Your task to perform on an android device: open device folders in google photos Image 0: 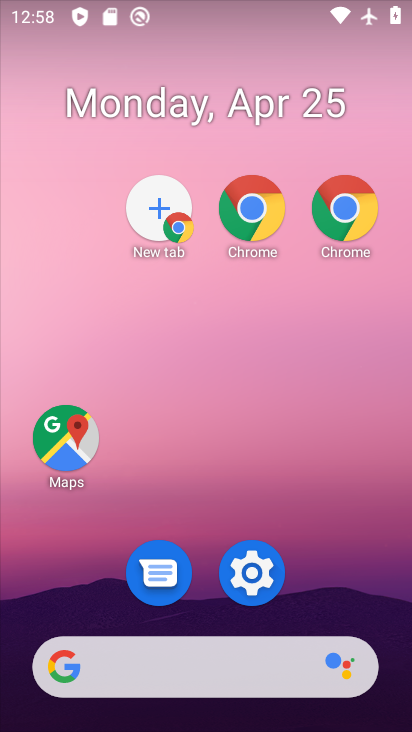
Step 0: drag from (255, 639) to (196, 197)
Your task to perform on an android device: open device folders in google photos Image 1: 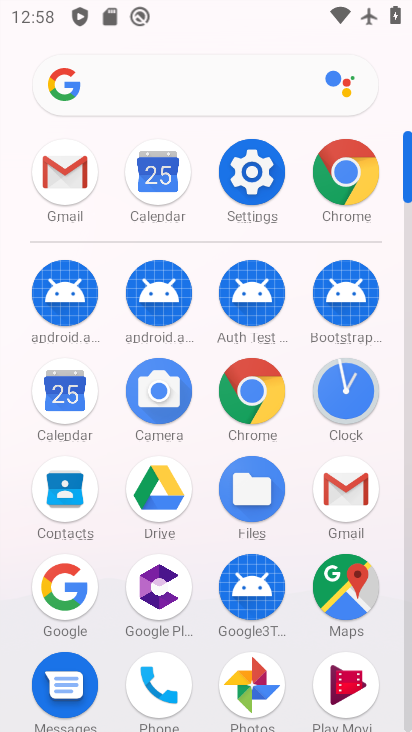
Step 1: click (258, 679)
Your task to perform on an android device: open device folders in google photos Image 2: 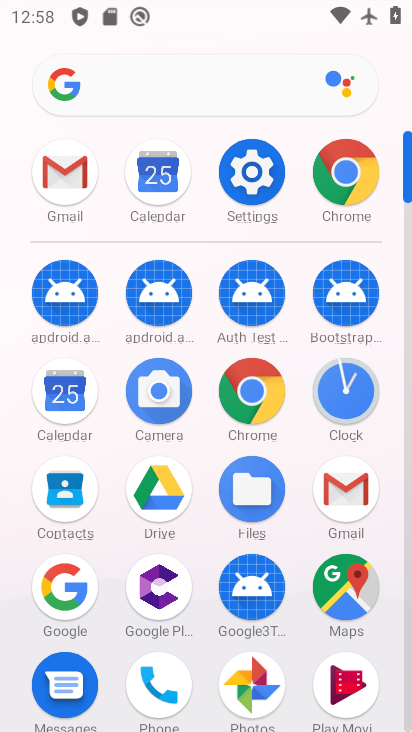
Step 2: click (258, 679)
Your task to perform on an android device: open device folders in google photos Image 3: 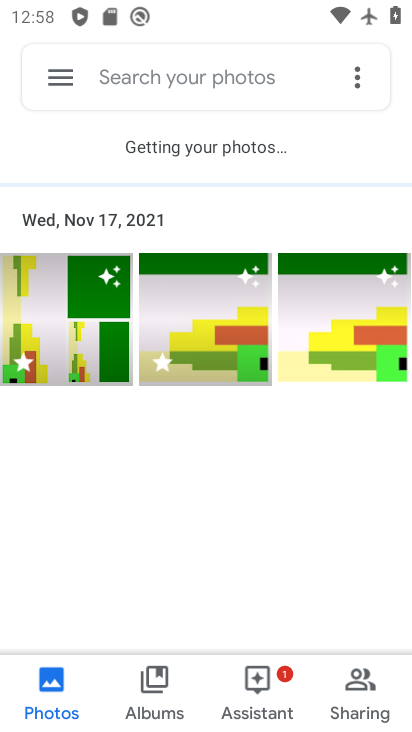
Step 3: drag from (67, 75) to (24, 103)
Your task to perform on an android device: open device folders in google photos Image 4: 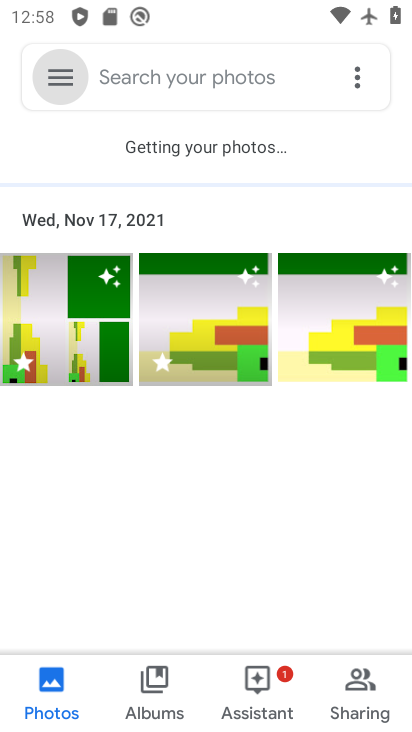
Step 4: click (50, 88)
Your task to perform on an android device: open device folders in google photos Image 5: 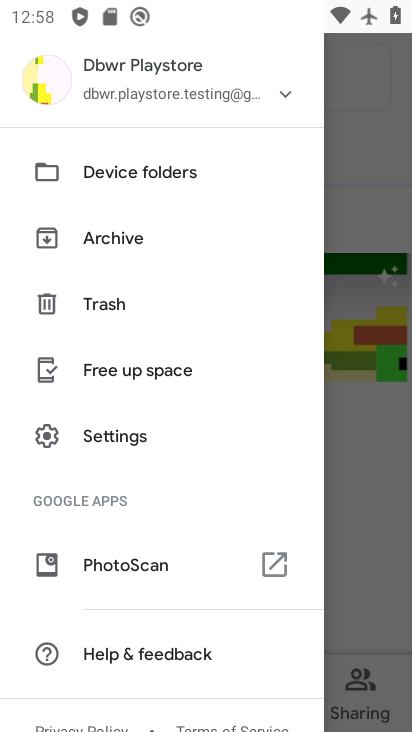
Step 5: drag from (62, 75) to (136, 495)
Your task to perform on an android device: open device folders in google photos Image 6: 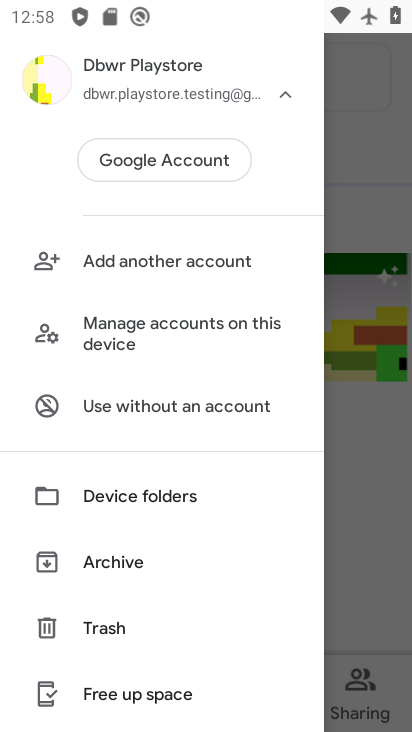
Step 6: click (135, 492)
Your task to perform on an android device: open device folders in google photos Image 7: 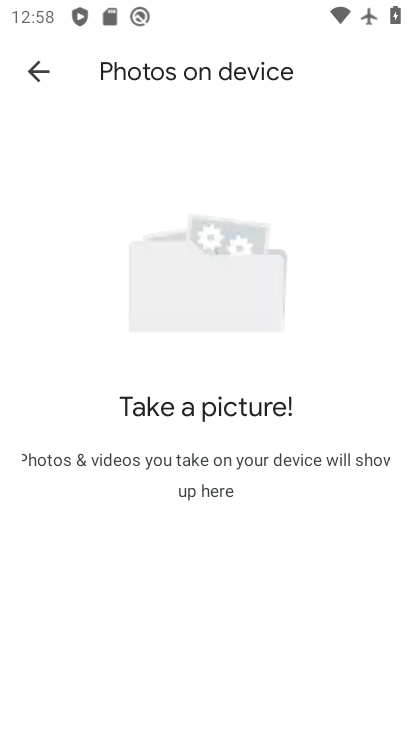
Step 7: click (34, 71)
Your task to perform on an android device: open device folders in google photos Image 8: 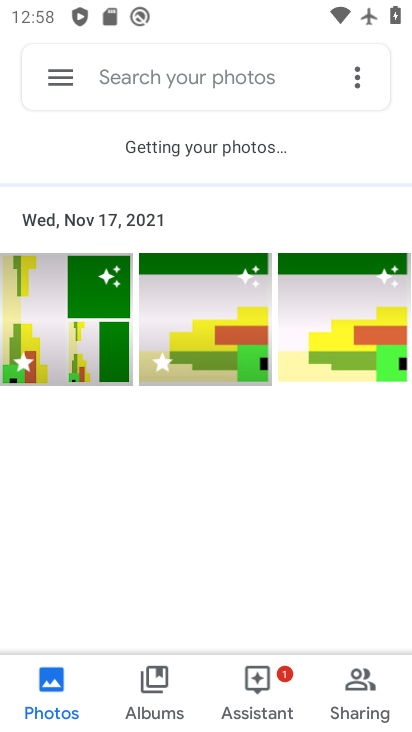
Step 8: click (57, 77)
Your task to perform on an android device: open device folders in google photos Image 9: 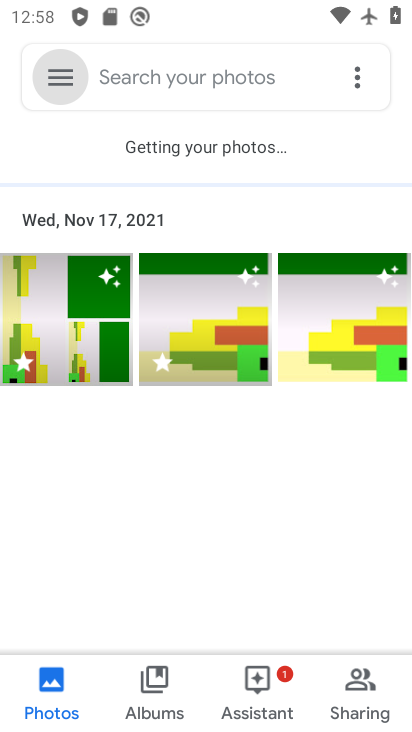
Step 9: click (64, 77)
Your task to perform on an android device: open device folders in google photos Image 10: 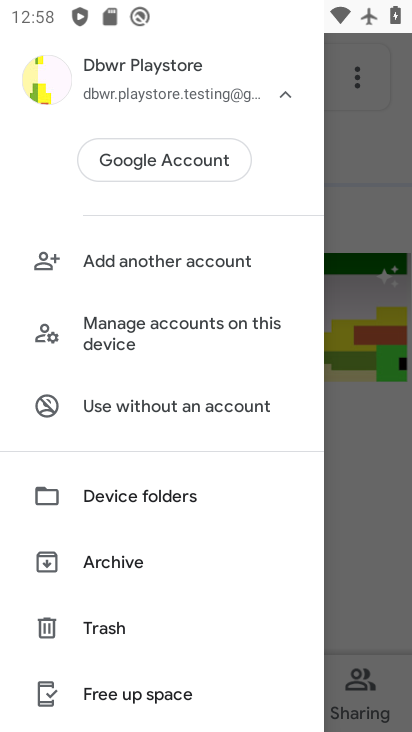
Step 10: drag from (63, 76) to (126, 490)
Your task to perform on an android device: open device folders in google photos Image 11: 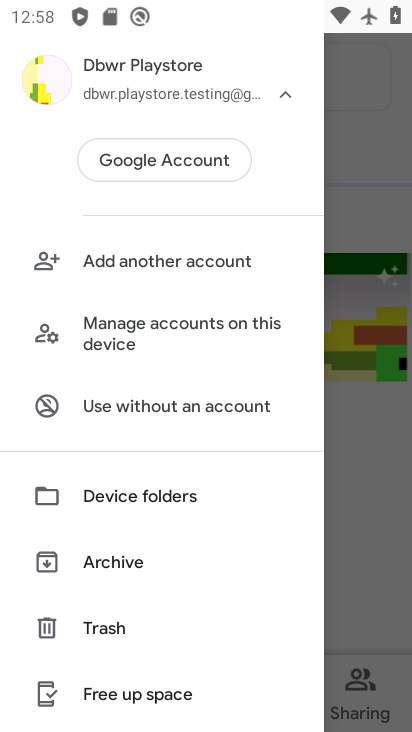
Step 11: click (132, 518)
Your task to perform on an android device: open device folders in google photos Image 12: 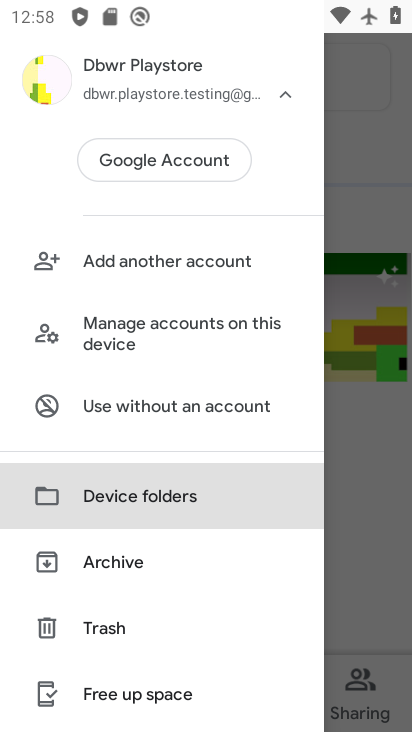
Step 12: click (114, 492)
Your task to perform on an android device: open device folders in google photos Image 13: 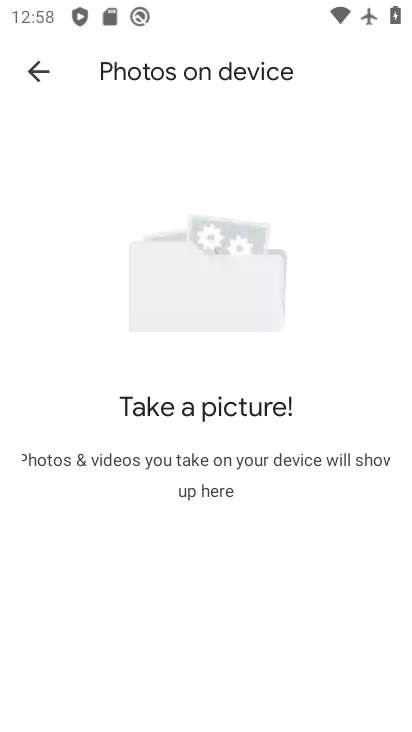
Step 13: task complete